Your task to perform on an android device: Empty the shopping cart on walmart. Add "logitech g pro" to the cart on walmart, then select checkout. Image 0: 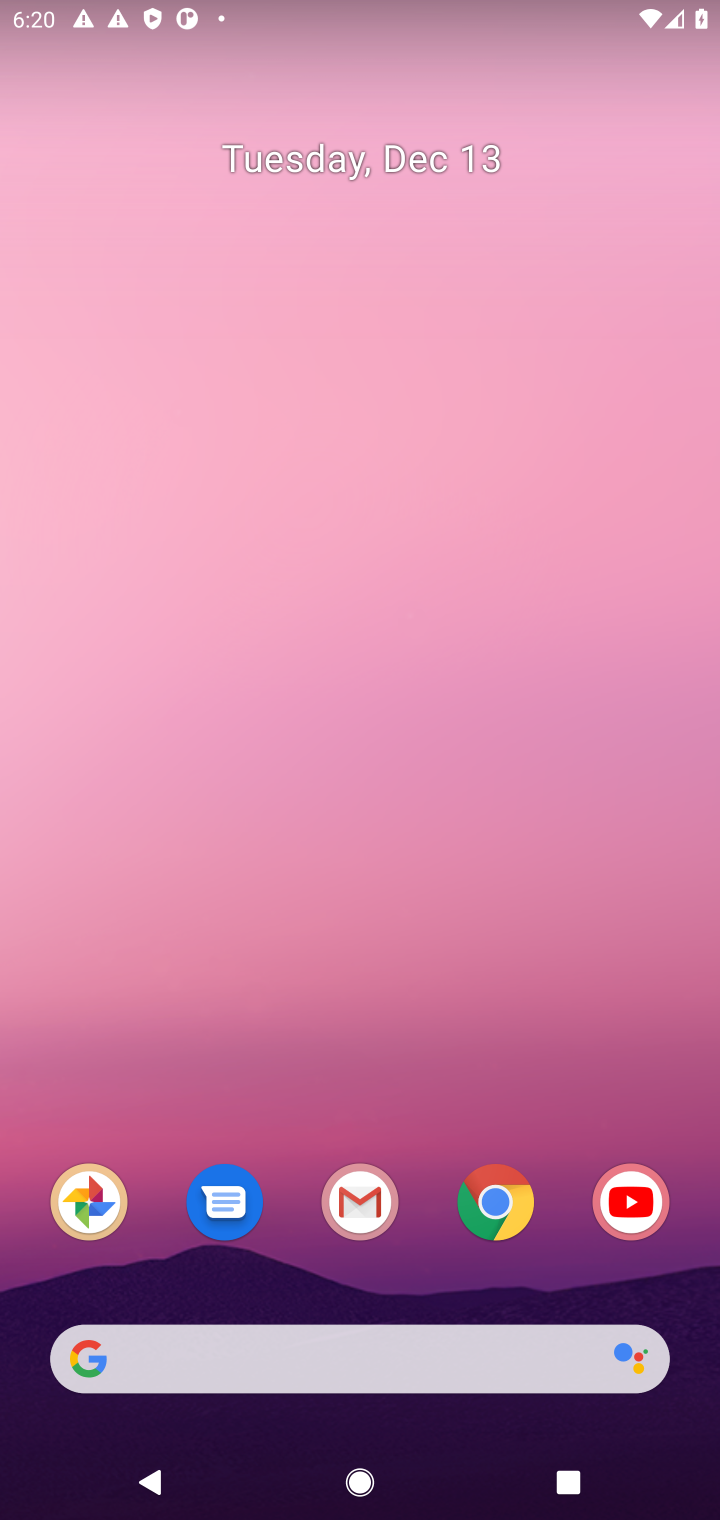
Step 0: click (491, 1212)
Your task to perform on an android device: Empty the shopping cart on walmart. Add "logitech g pro" to the cart on walmart, then select checkout. Image 1: 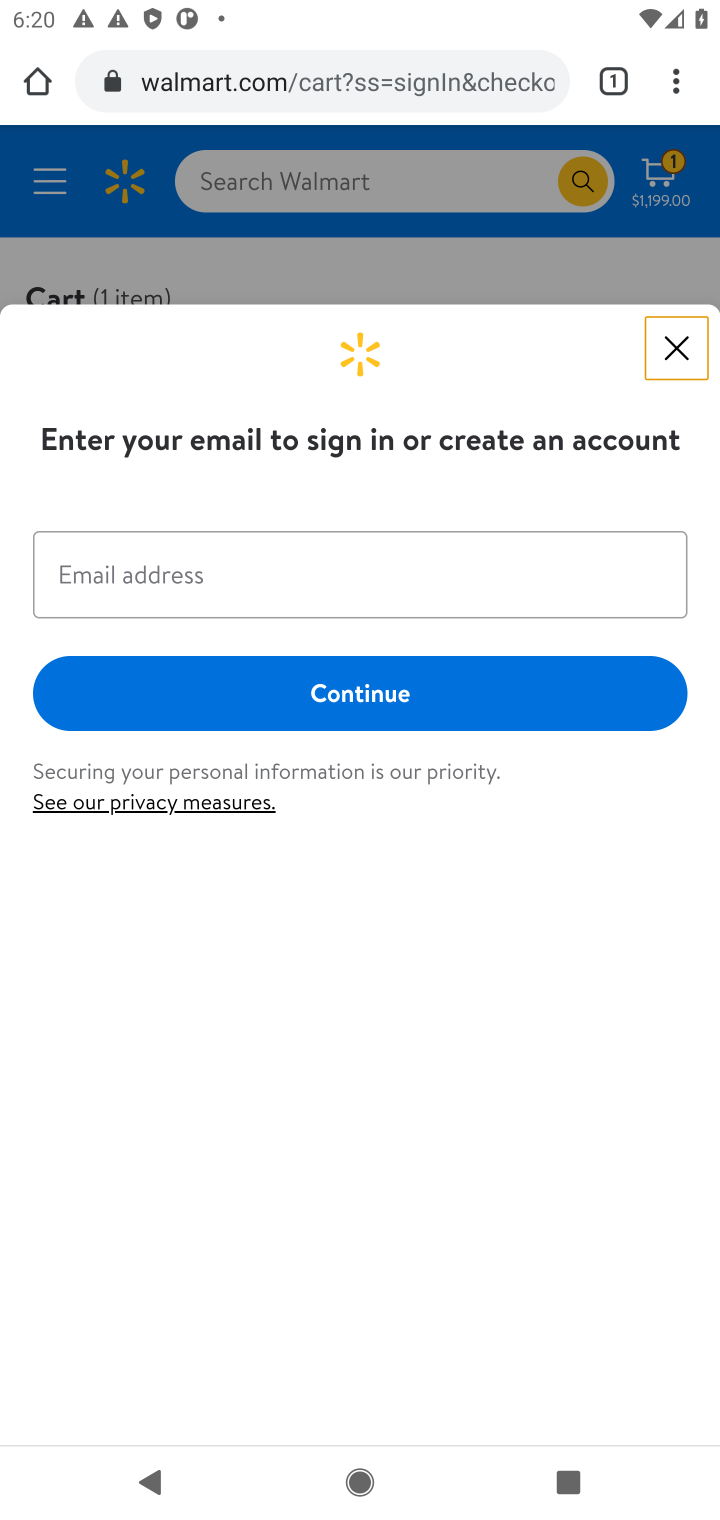
Step 1: click (675, 356)
Your task to perform on an android device: Empty the shopping cart on walmart. Add "logitech g pro" to the cart on walmart, then select checkout. Image 2: 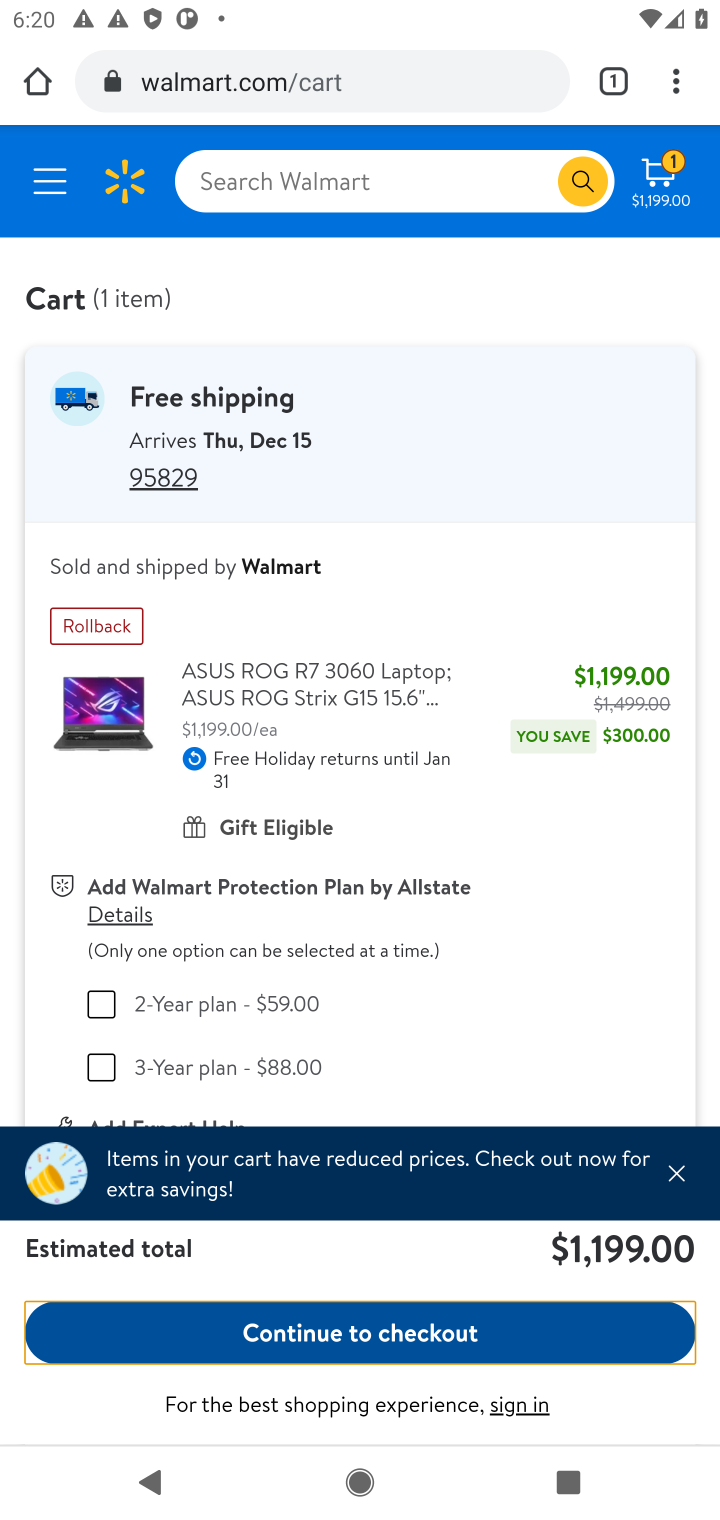
Step 2: drag from (479, 763) to (505, 473)
Your task to perform on an android device: Empty the shopping cart on walmart. Add "logitech g pro" to the cart on walmart, then select checkout. Image 3: 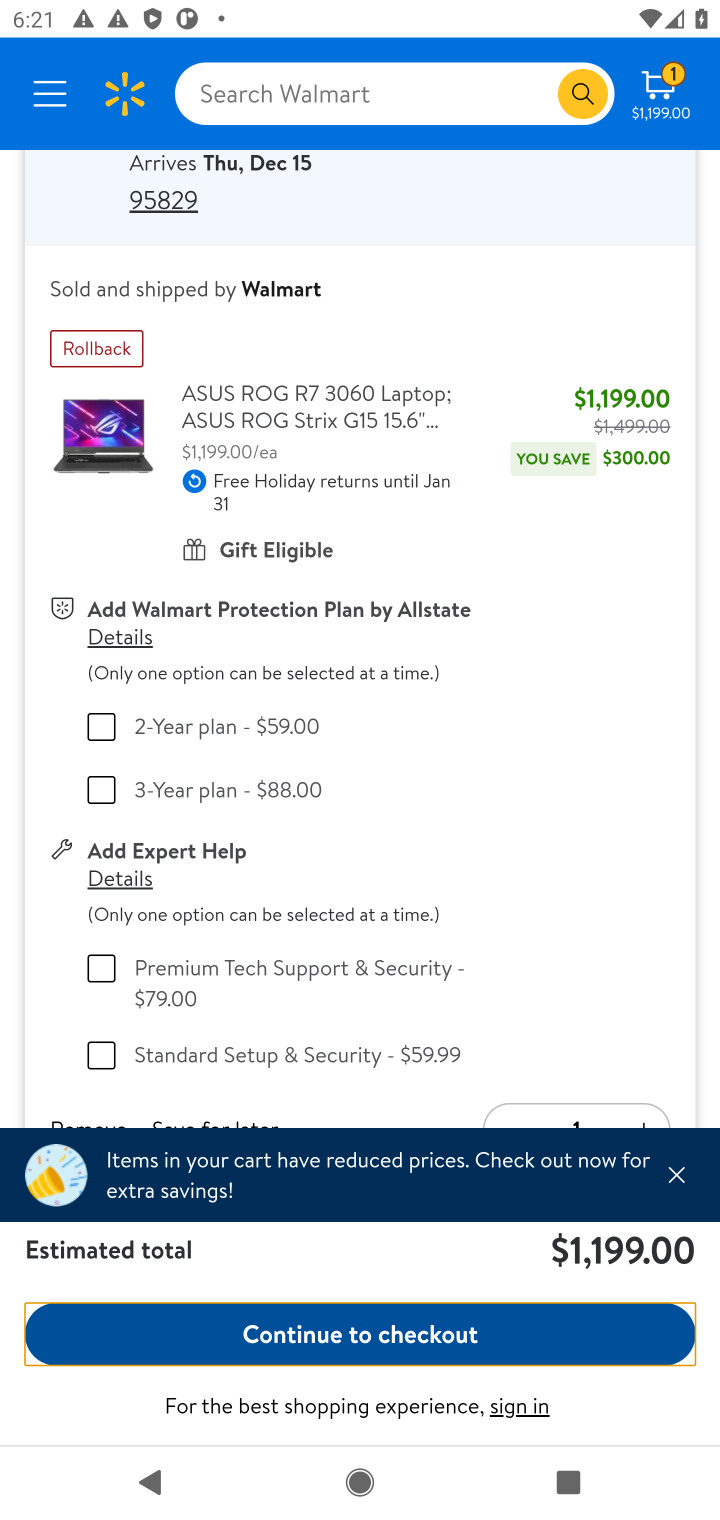
Step 3: drag from (299, 836) to (339, 499)
Your task to perform on an android device: Empty the shopping cart on walmart. Add "logitech g pro" to the cart on walmart, then select checkout. Image 4: 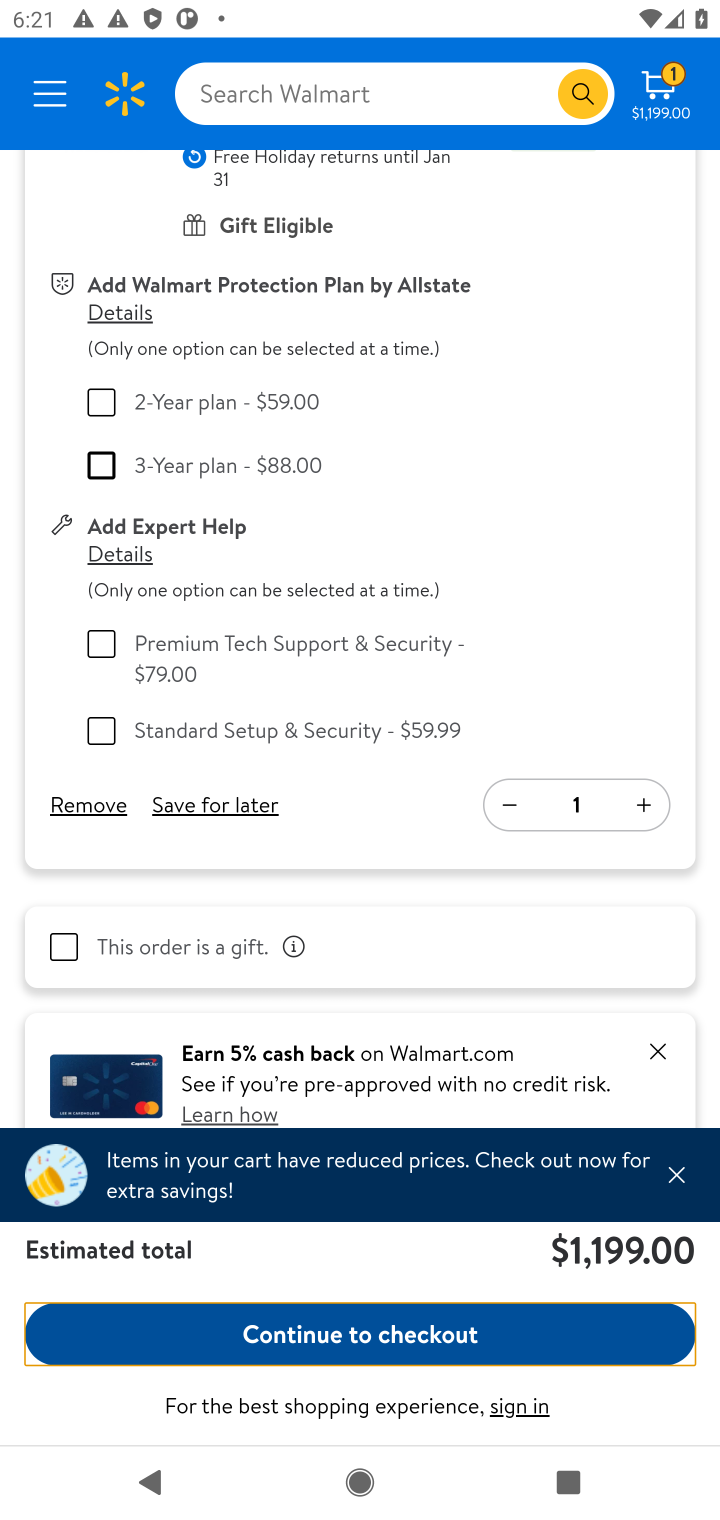
Step 4: click (91, 814)
Your task to perform on an android device: Empty the shopping cart on walmart. Add "logitech g pro" to the cart on walmart, then select checkout. Image 5: 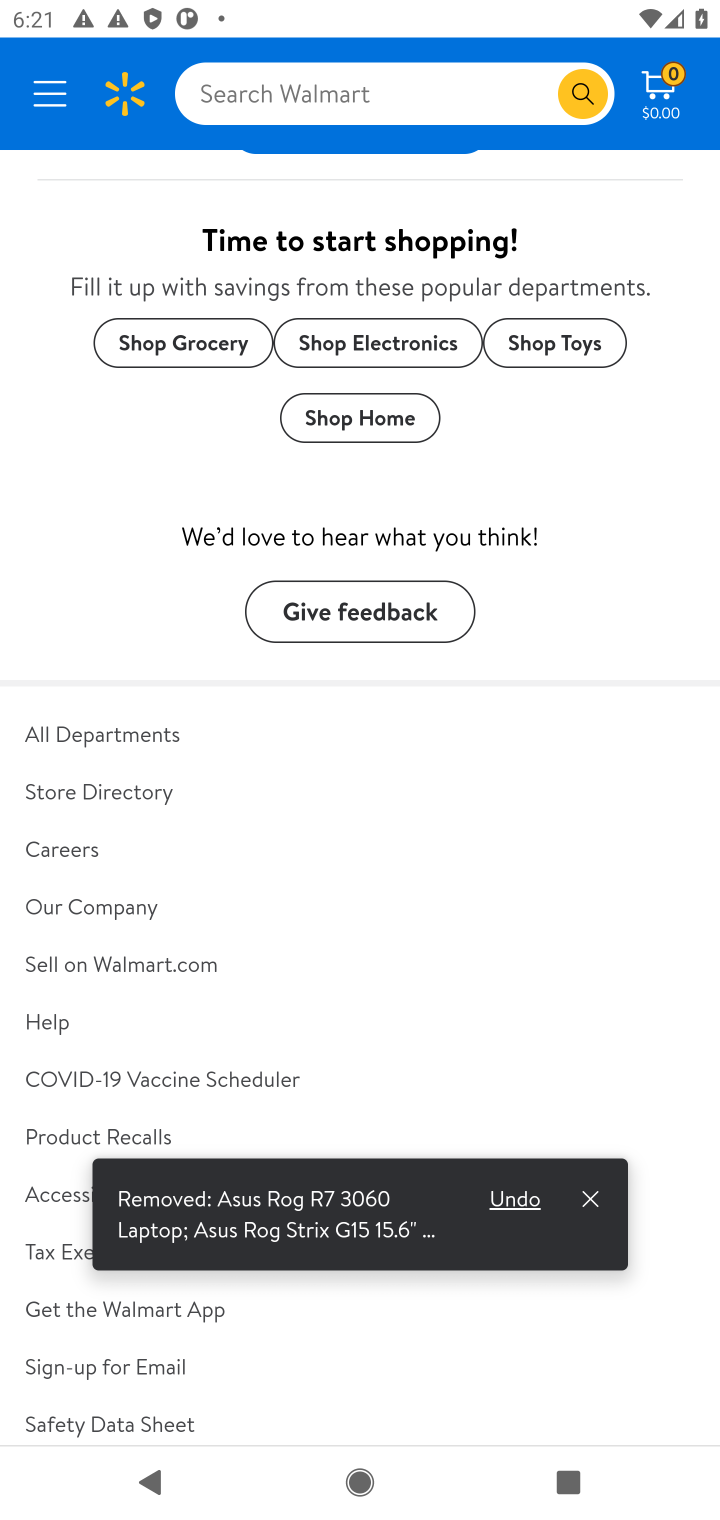
Step 5: drag from (123, 652) to (174, 904)
Your task to perform on an android device: Empty the shopping cart on walmart. Add "logitech g pro" to the cart on walmart, then select checkout. Image 6: 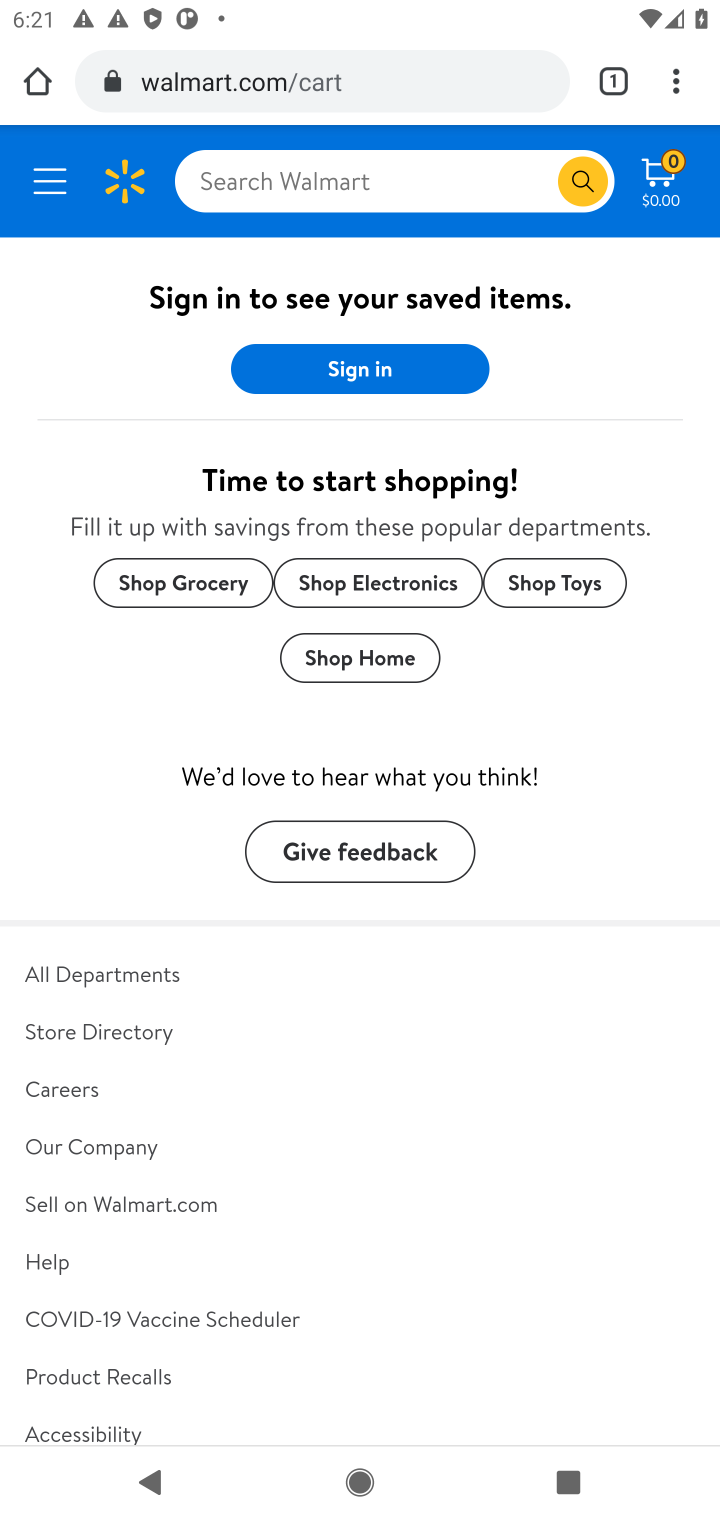
Step 6: click (366, 183)
Your task to perform on an android device: Empty the shopping cart on walmart. Add "logitech g pro" to the cart on walmart, then select checkout. Image 7: 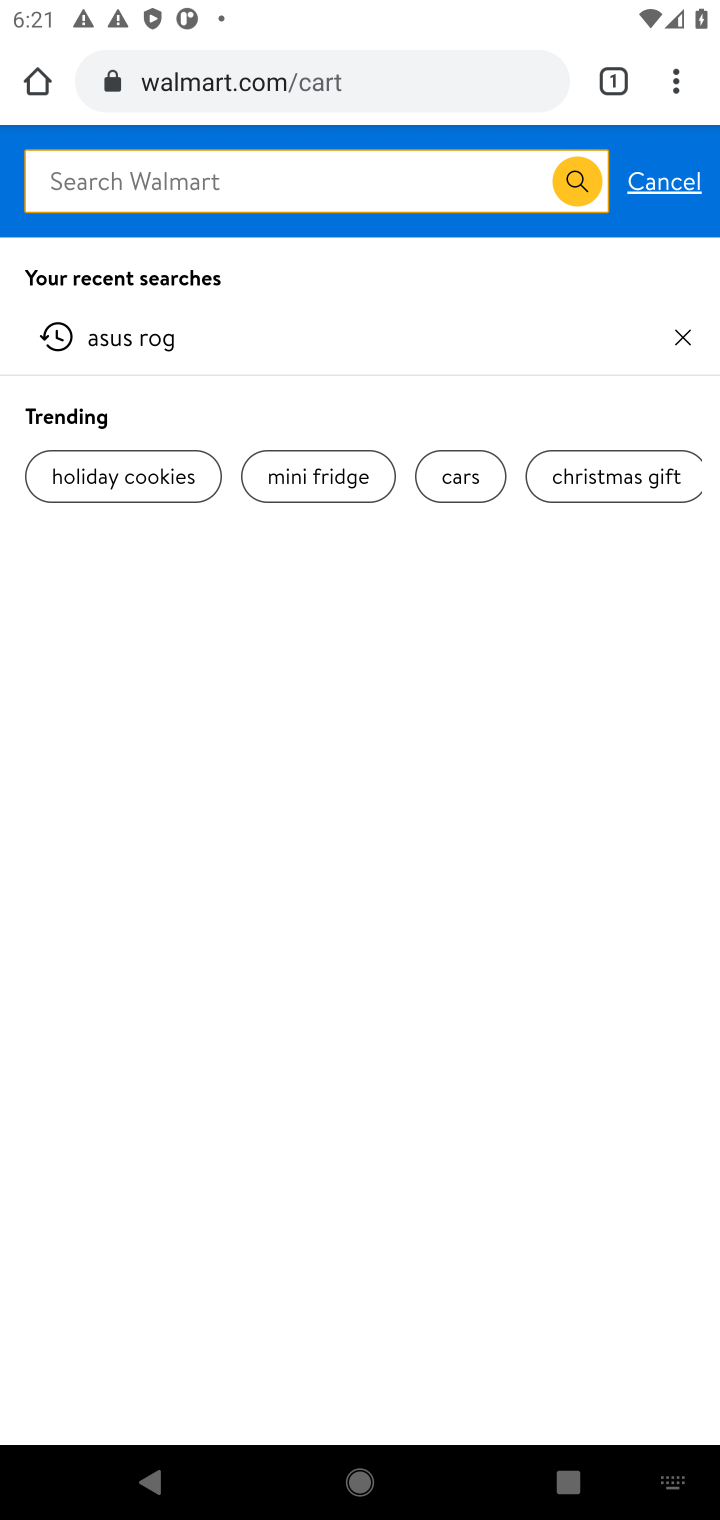
Step 7: type "logitech g pro"
Your task to perform on an android device: Empty the shopping cart on walmart. Add "logitech g pro" to the cart on walmart, then select checkout. Image 8: 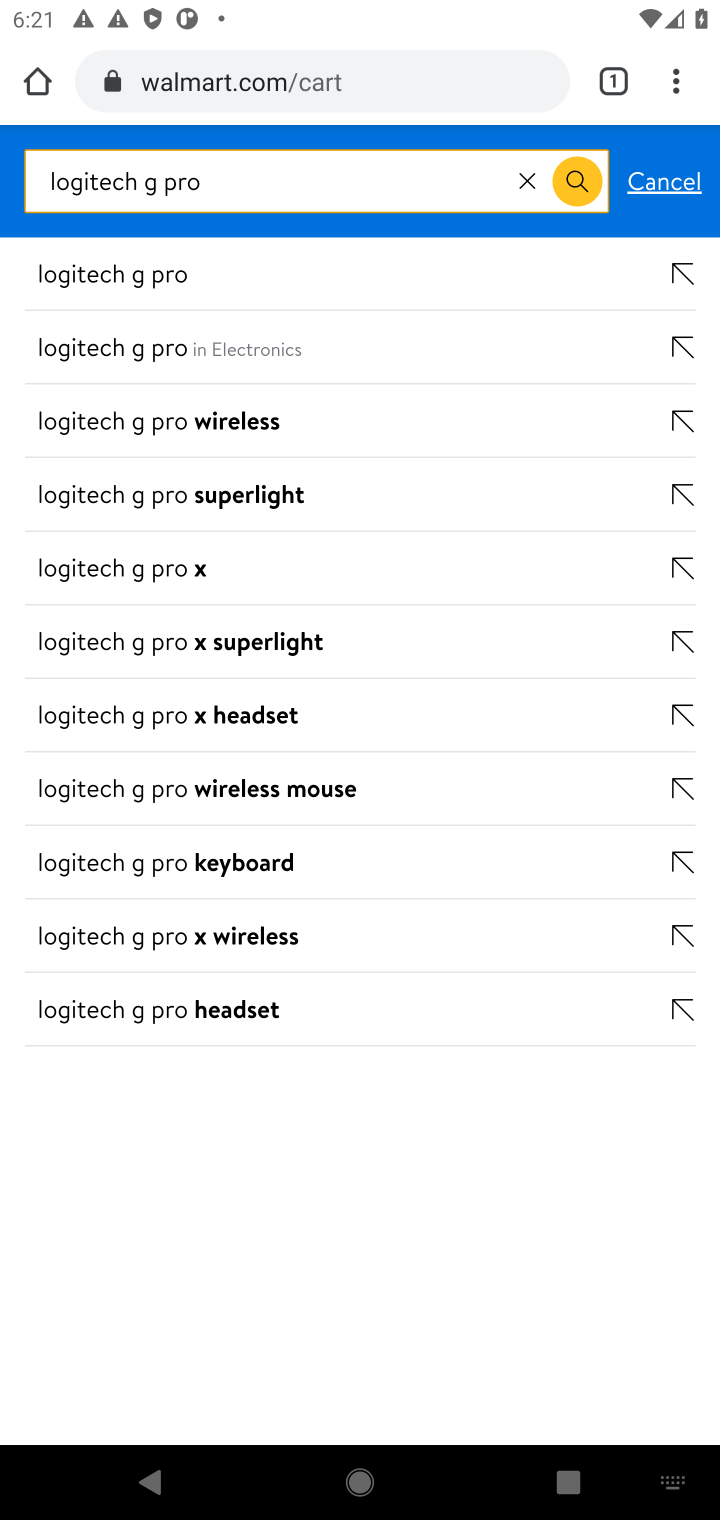
Step 8: click (82, 285)
Your task to perform on an android device: Empty the shopping cart on walmart. Add "logitech g pro" to the cart on walmart, then select checkout. Image 9: 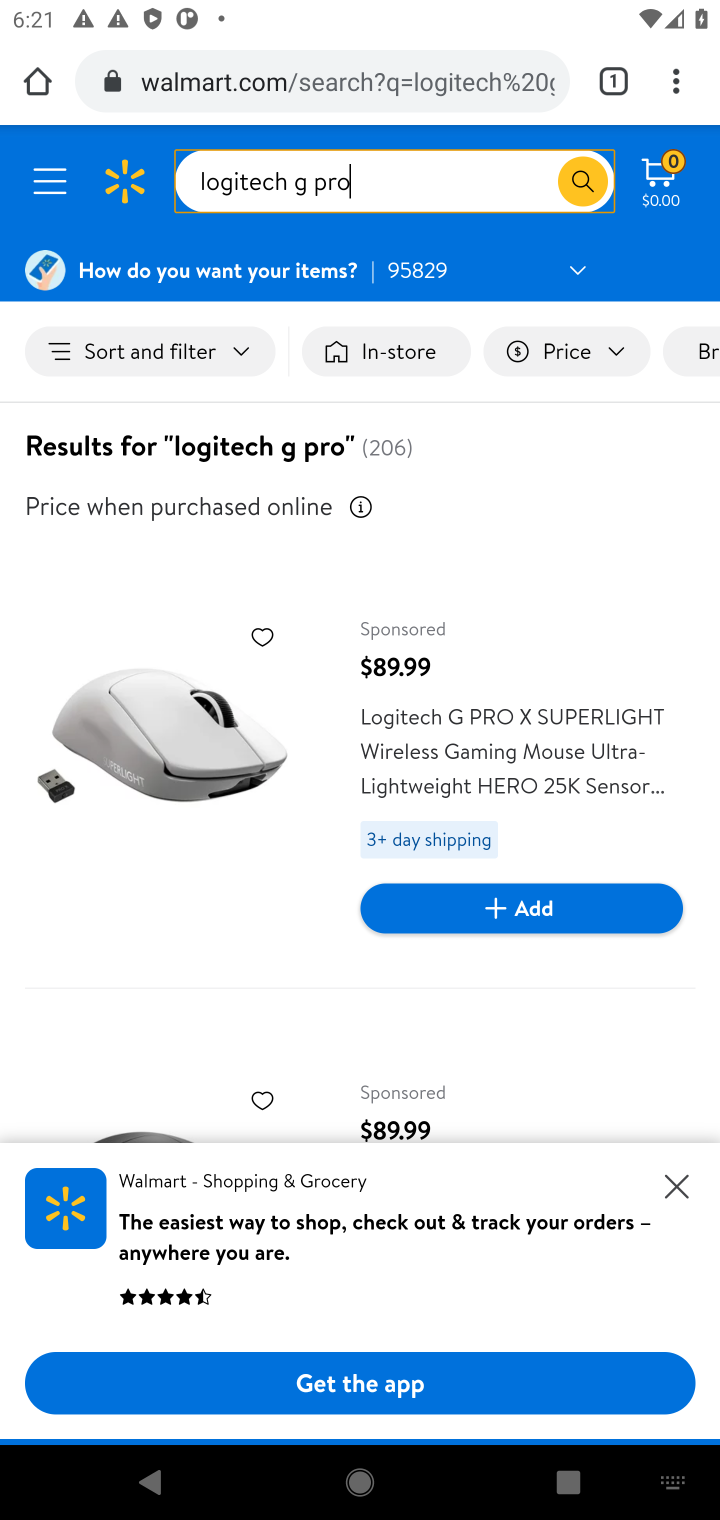
Step 9: click (440, 753)
Your task to perform on an android device: Empty the shopping cart on walmart. Add "logitech g pro" to the cart on walmart, then select checkout. Image 10: 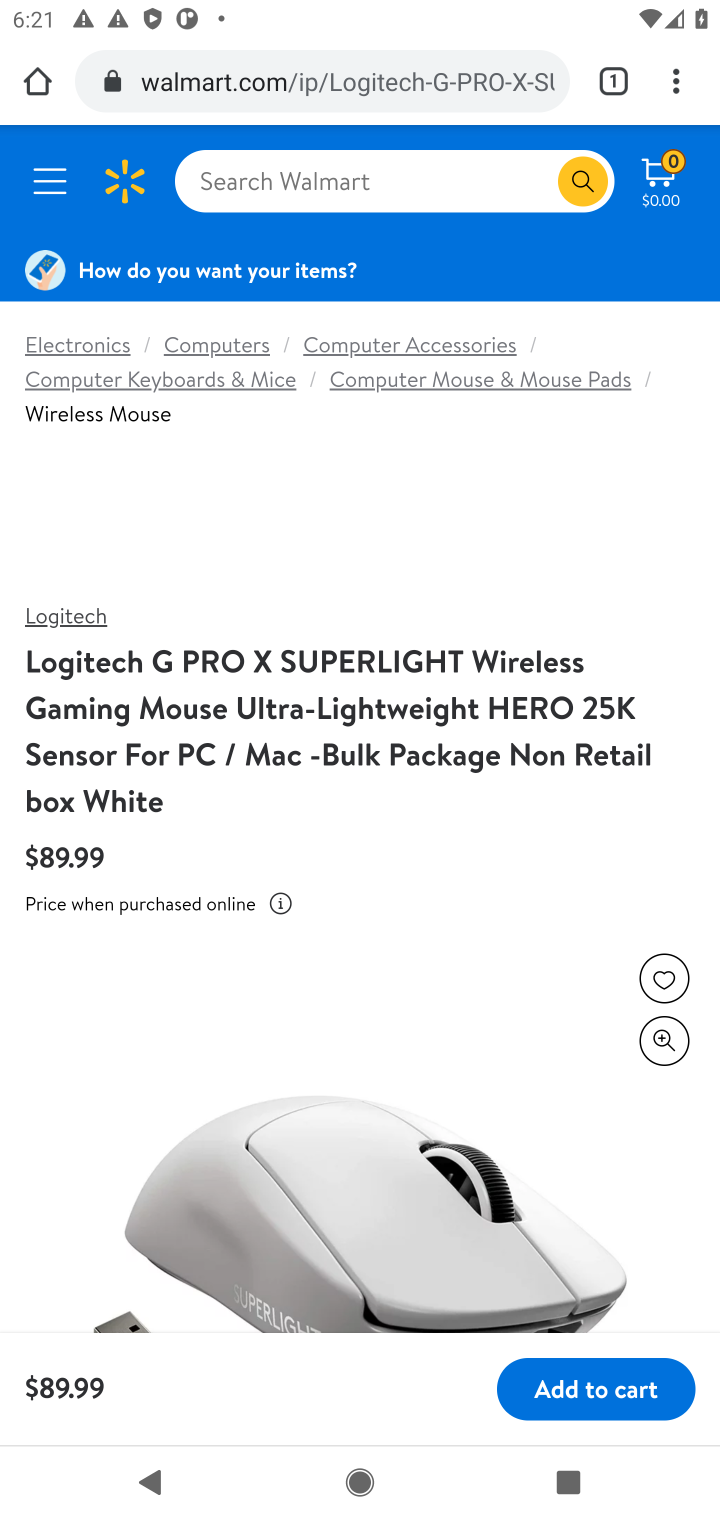
Step 10: drag from (343, 1149) to (353, 598)
Your task to perform on an android device: Empty the shopping cart on walmart. Add "logitech g pro" to the cart on walmart, then select checkout. Image 11: 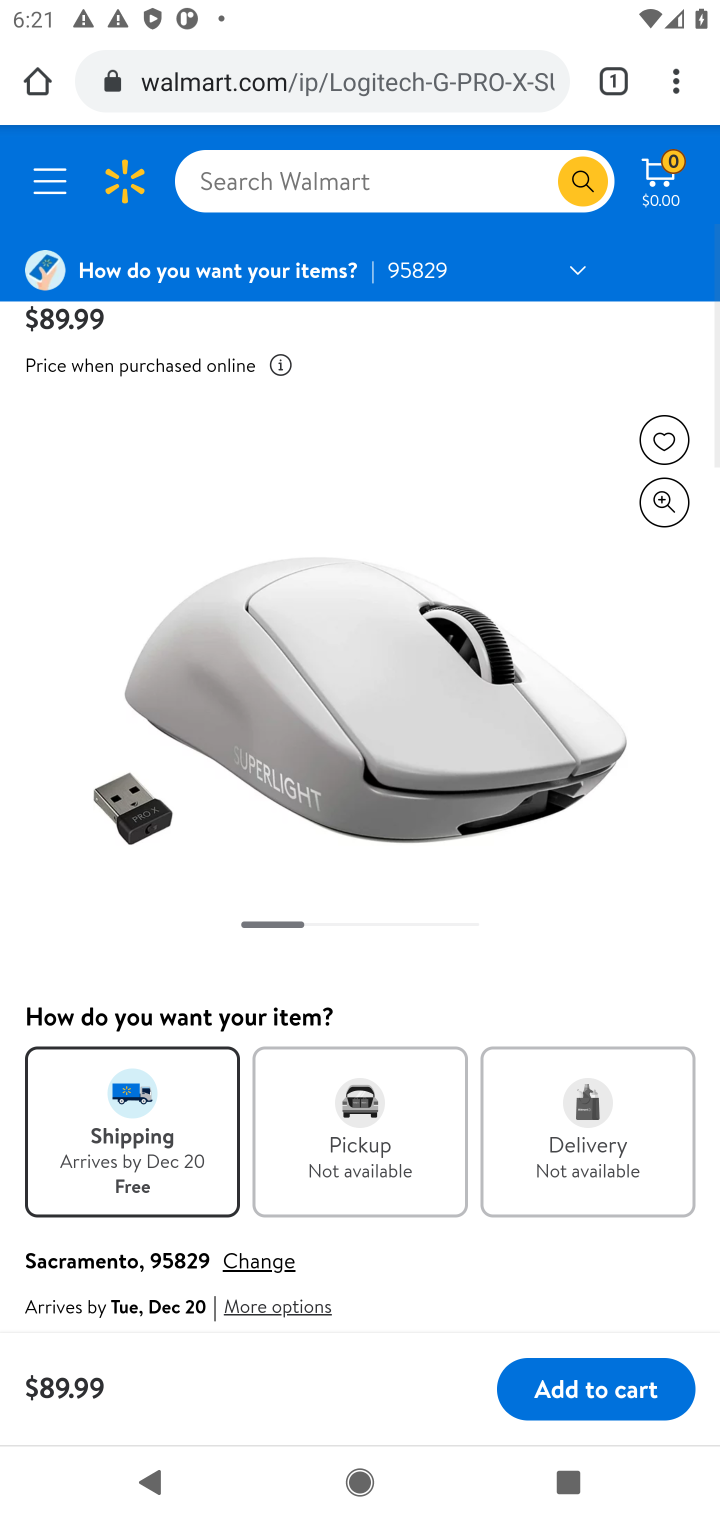
Step 11: click (615, 1400)
Your task to perform on an android device: Empty the shopping cart on walmart. Add "logitech g pro" to the cart on walmart, then select checkout. Image 12: 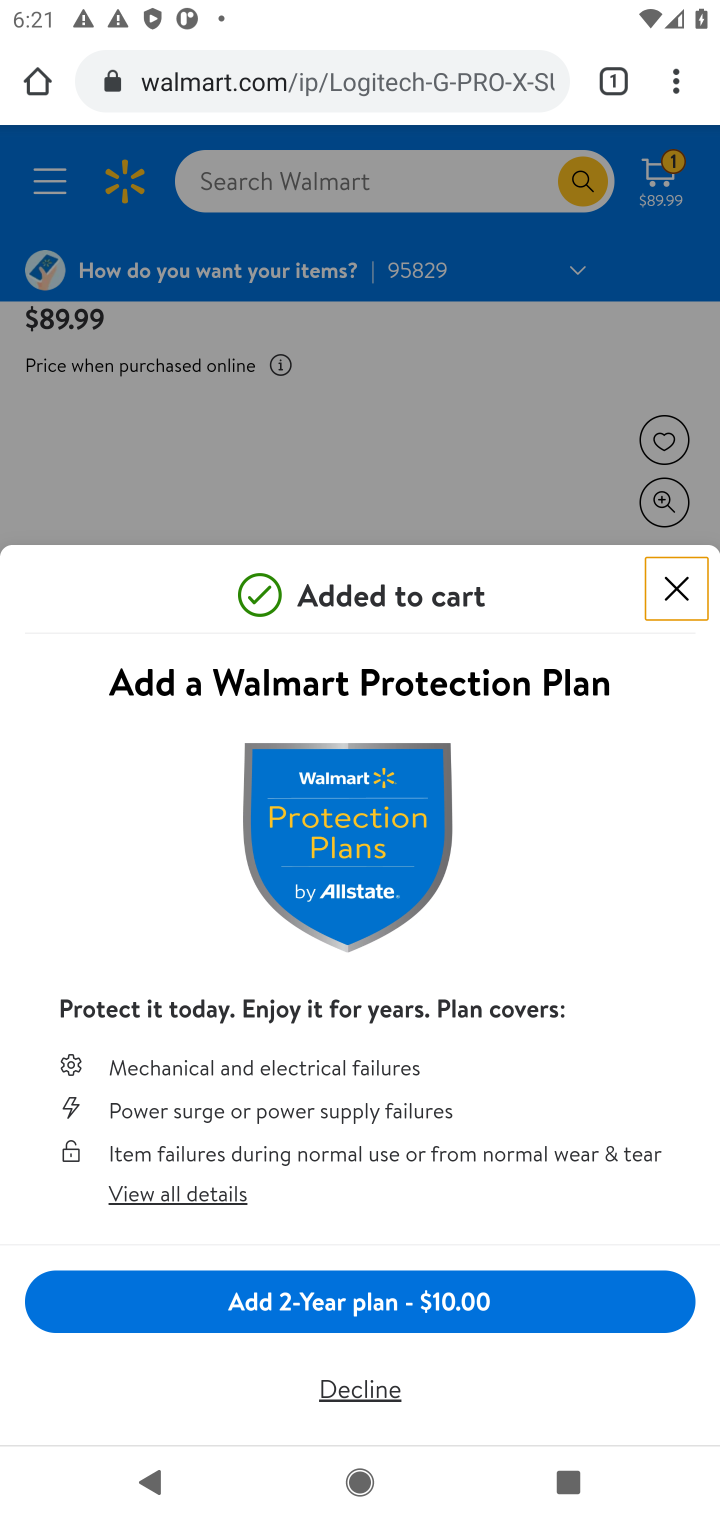
Step 12: click (674, 590)
Your task to perform on an android device: Empty the shopping cart on walmart. Add "logitech g pro" to the cart on walmart, then select checkout. Image 13: 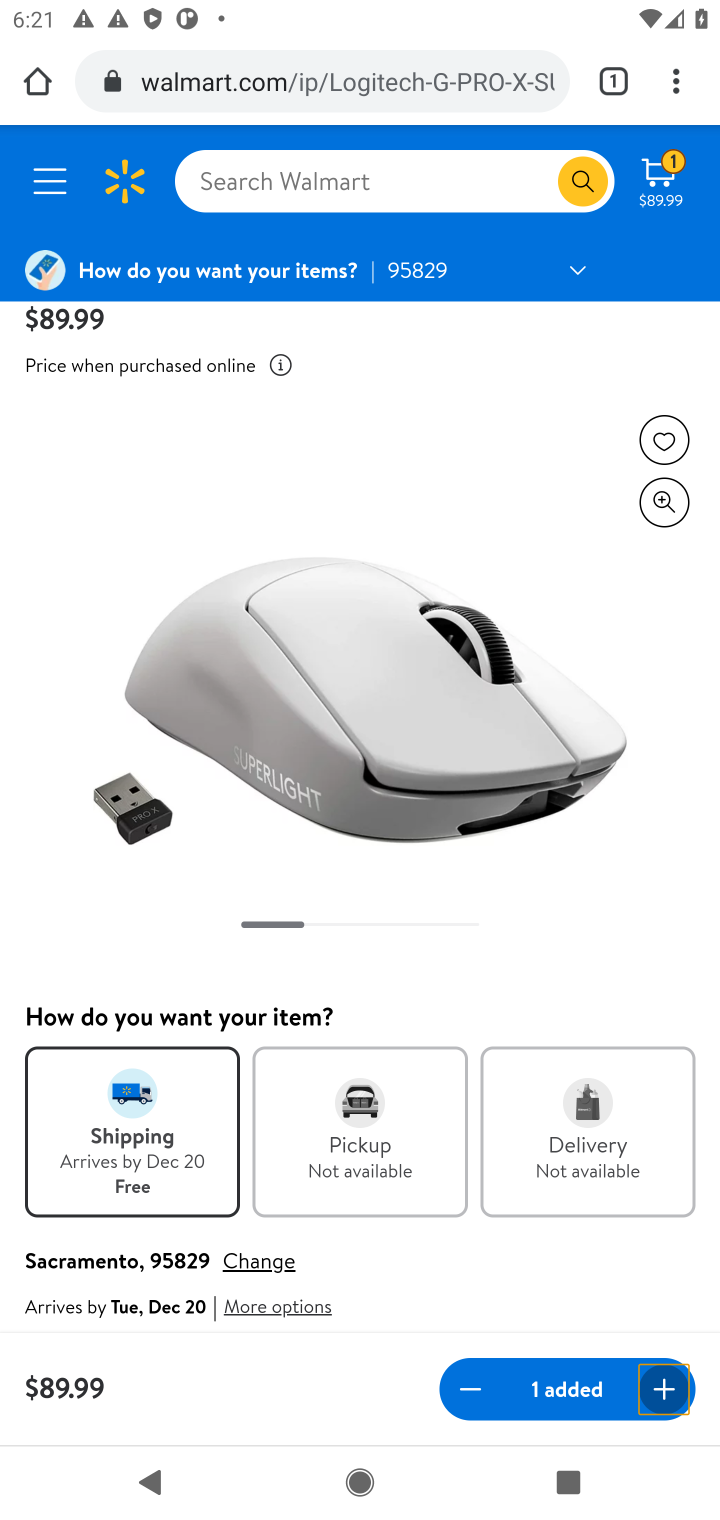
Step 13: click (664, 192)
Your task to perform on an android device: Empty the shopping cart on walmart. Add "logitech g pro" to the cart on walmart, then select checkout. Image 14: 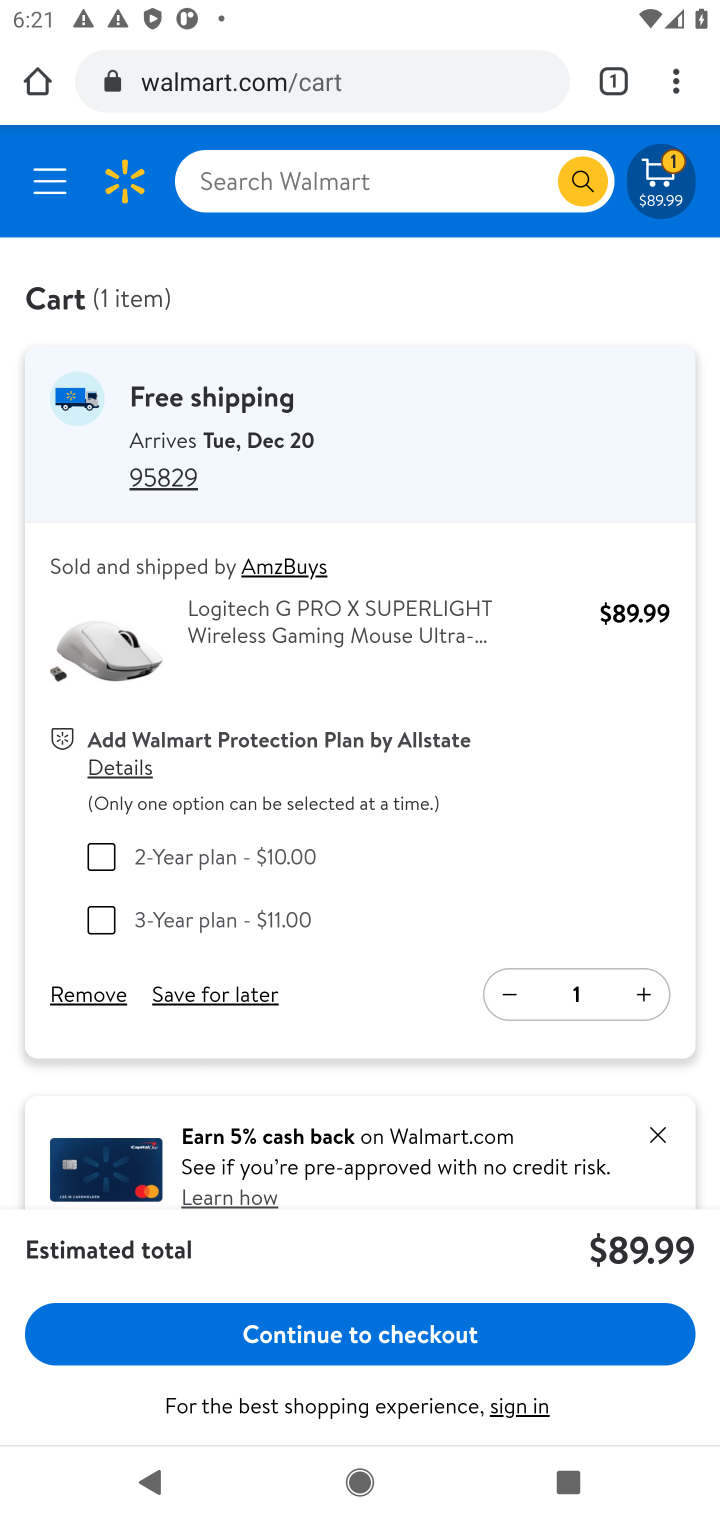
Step 14: click (320, 1331)
Your task to perform on an android device: Empty the shopping cart on walmart. Add "logitech g pro" to the cart on walmart, then select checkout. Image 15: 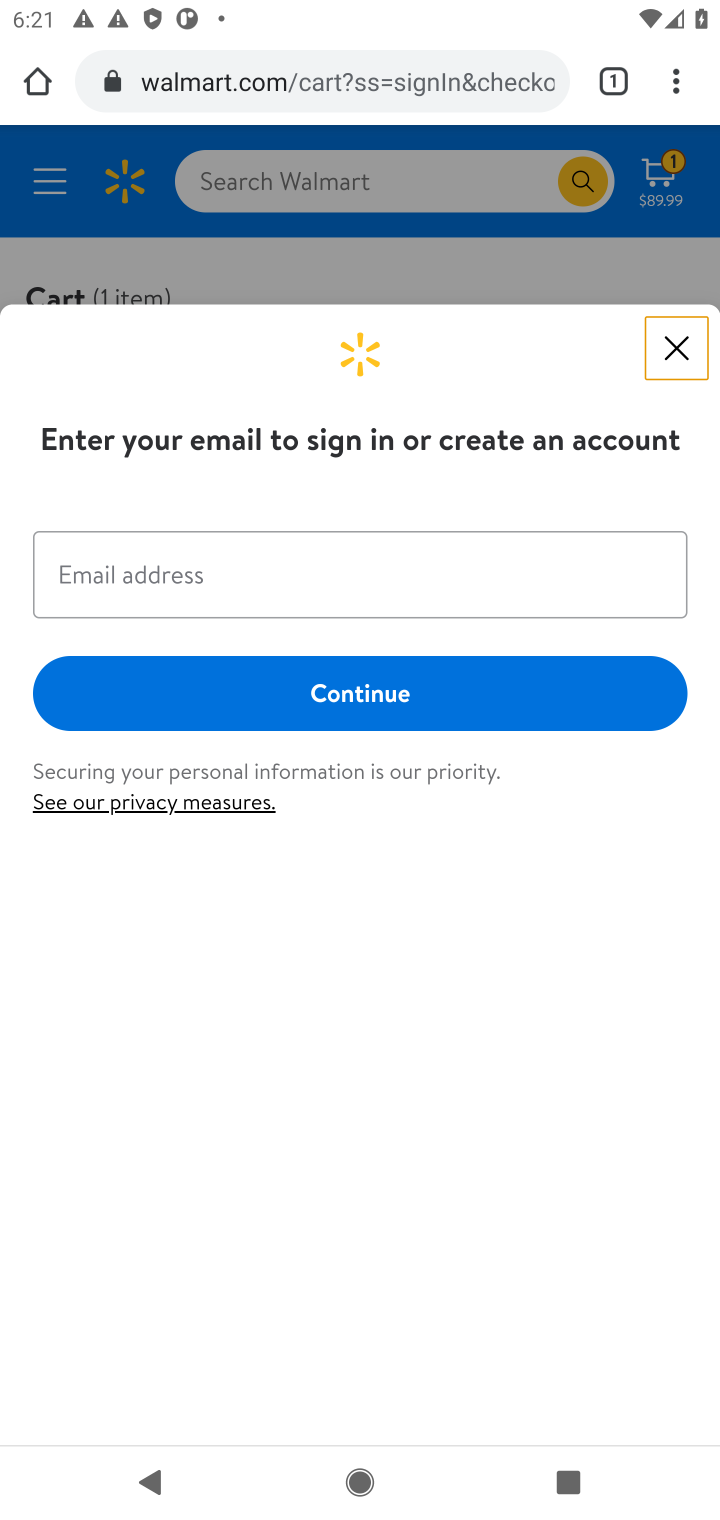
Step 15: task complete